Your task to perform on an android device: delete a single message in the gmail app Image 0: 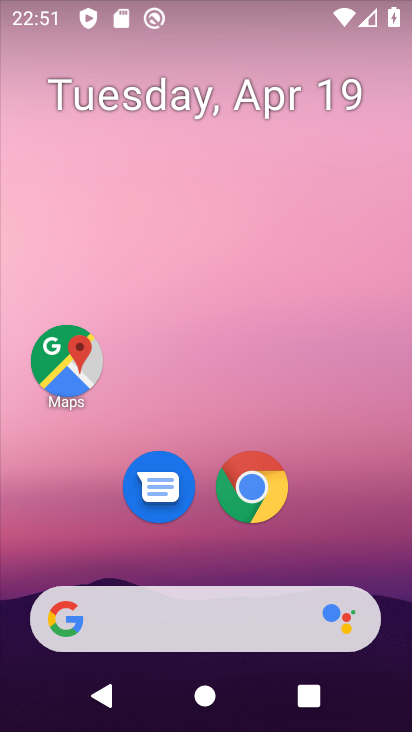
Step 0: drag from (180, 531) to (249, 176)
Your task to perform on an android device: delete a single message in the gmail app Image 1: 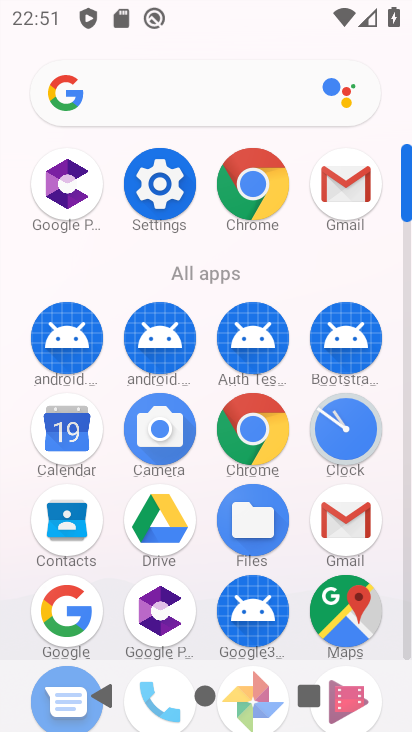
Step 1: click (356, 201)
Your task to perform on an android device: delete a single message in the gmail app Image 2: 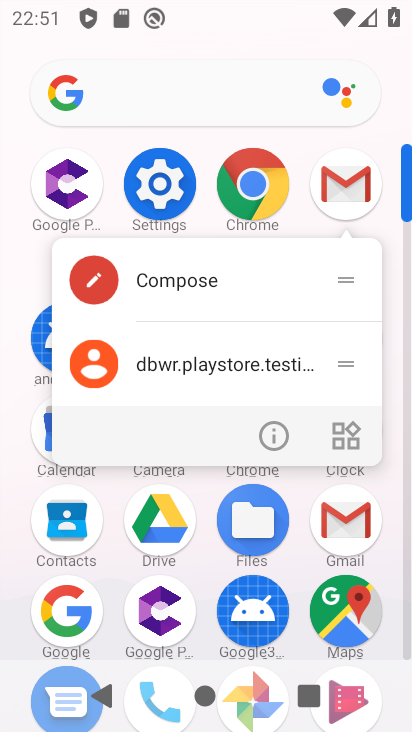
Step 2: click (350, 187)
Your task to perform on an android device: delete a single message in the gmail app Image 3: 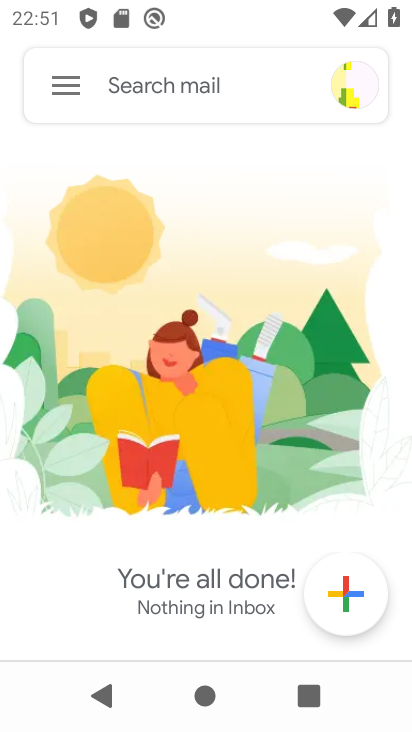
Step 3: click (78, 94)
Your task to perform on an android device: delete a single message in the gmail app Image 4: 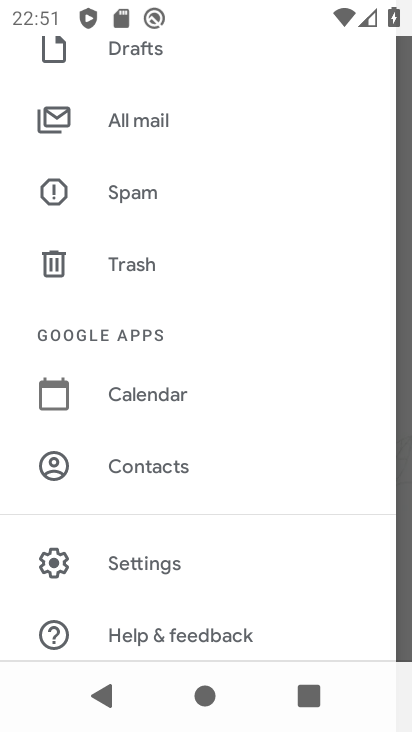
Step 4: click (126, 114)
Your task to perform on an android device: delete a single message in the gmail app Image 5: 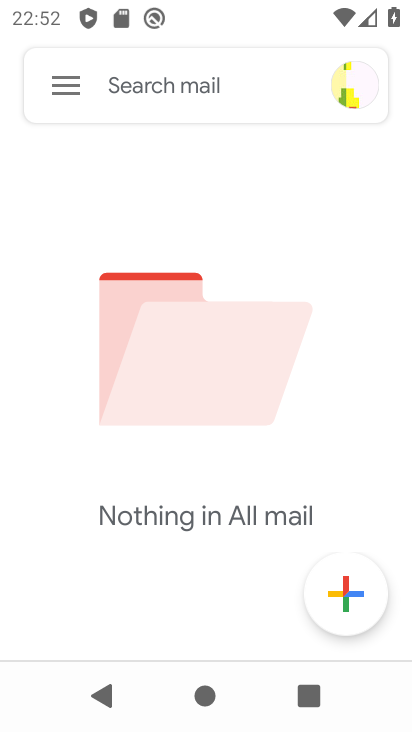
Step 5: task complete